Your task to perform on an android device: open chrome privacy settings Image 0: 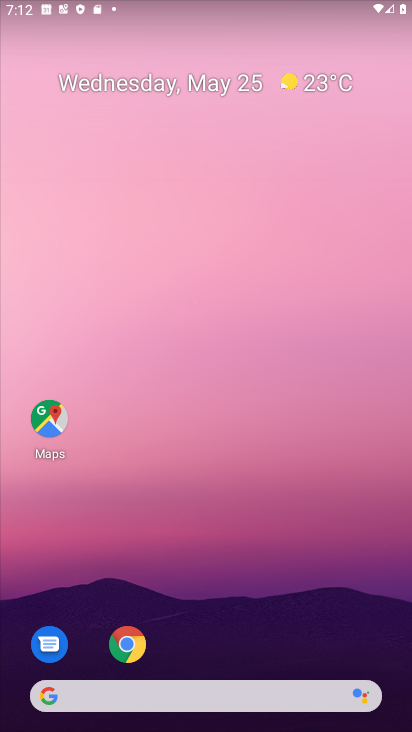
Step 0: press home button
Your task to perform on an android device: open chrome privacy settings Image 1: 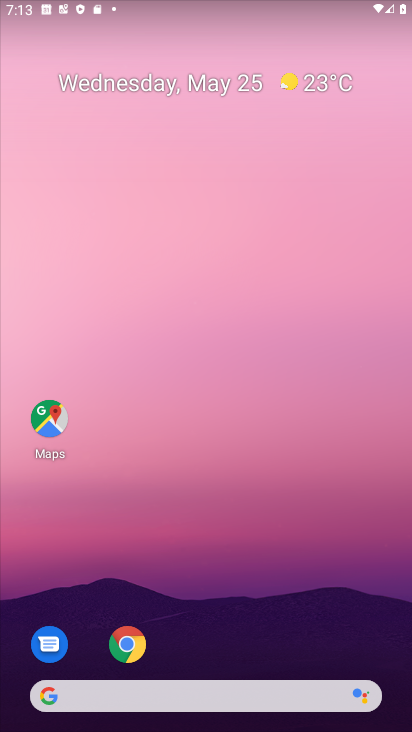
Step 1: drag from (88, 724) to (192, 0)
Your task to perform on an android device: open chrome privacy settings Image 2: 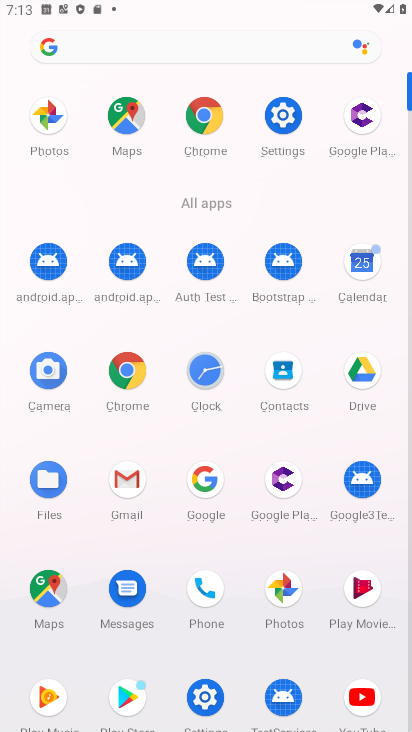
Step 2: click (194, 114)
Your task to perform on an android device: open chrome privacy settings Image 3: 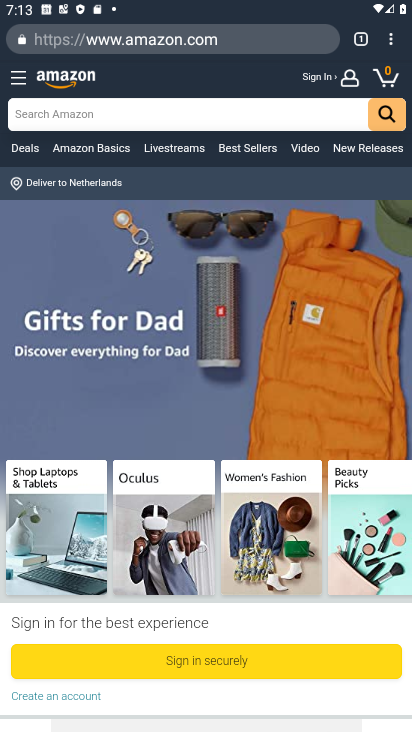
Step 3: click (388, 47)
Your task to perform on an android device: open chrome privacy settings Image 4: 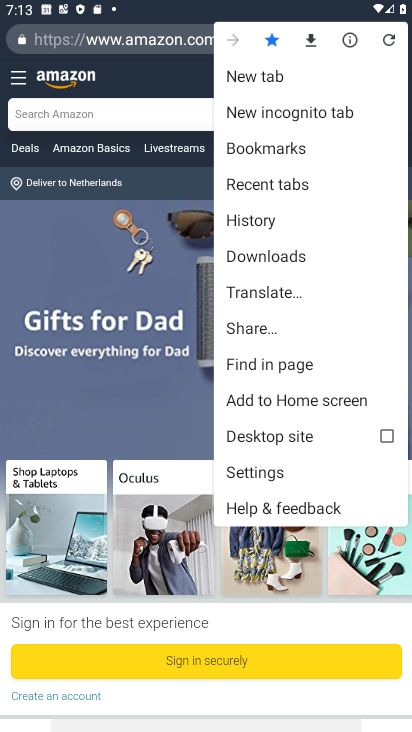
Step 4: click (286, 478)
Your task to perform on an android device: open chrome privacy settings Image 5: 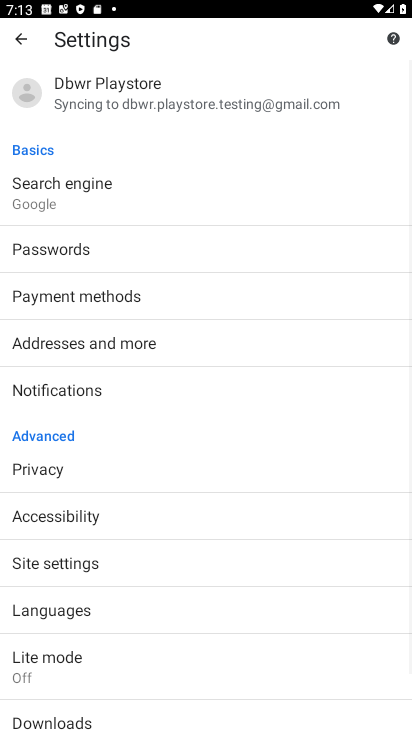
Step 5: click (81, 477)
Your task to perform on an android device: open chrome privacy settings Image 6: 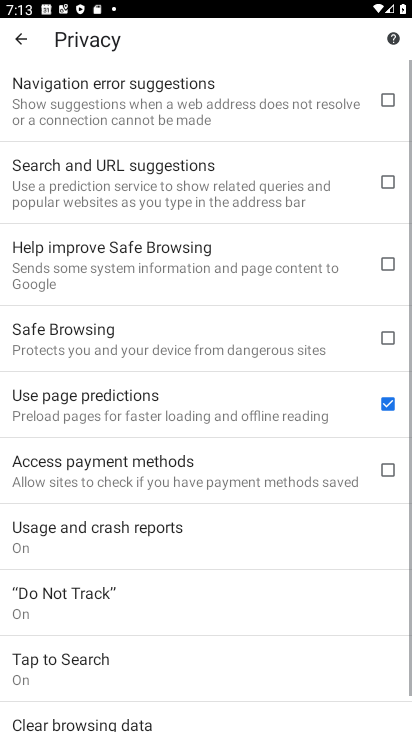
Step 6: task complete